Your task to perform on an android device: open app "Google Sheets" Image 0: 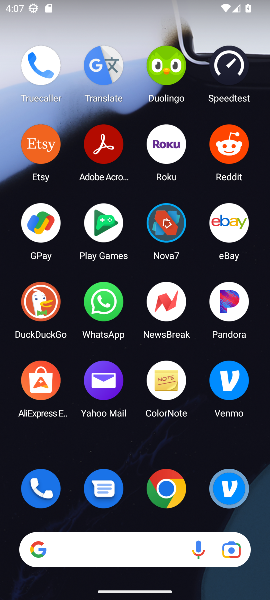
Step 0: drag from (141, 444) to (155, 8)
Your task to perform on an android device: open app "Google Sheets" Image 1: 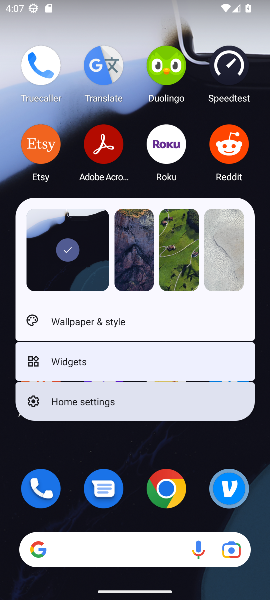
Step 1: click (134, 113)
Your task to perform on an android device: open app "Google Sheets" Image 2: 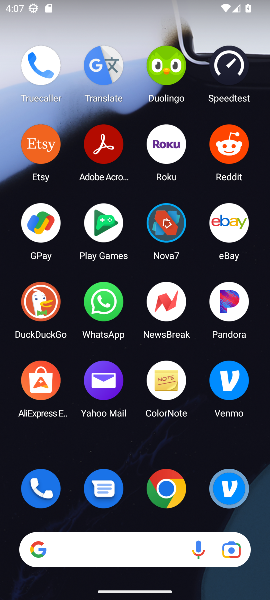
Step 2: drag from (130, 438) to (149, 103)
Your task to perform on an android device: open app "Google Sheets" Image 3: 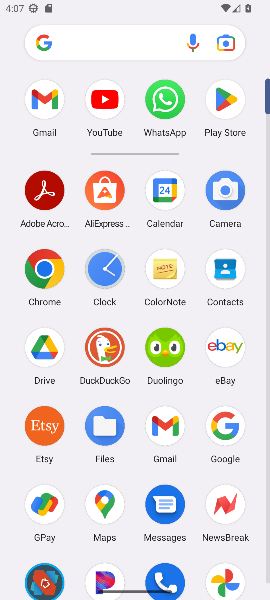
Step 3: drag from (139, 456) to (147, 184)
Your task to perform on an android device: open app "Google Sheets" Image 4: 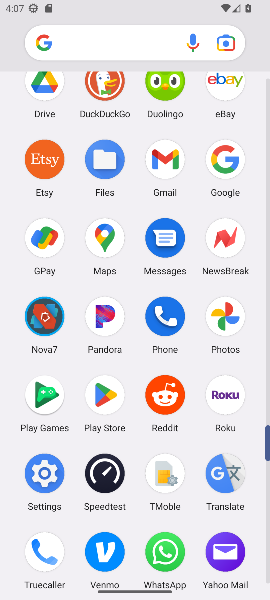
Step 4: click (110, 392)
Your task to perform on an android device: open app "Google Sheets" Image 5: 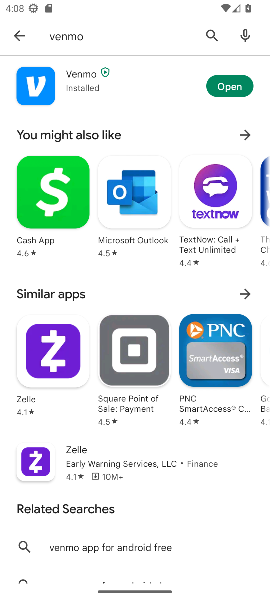
Step 5: click (213, 54)
Your task to perform on an android device: open app "Google Sheets" Image 6: 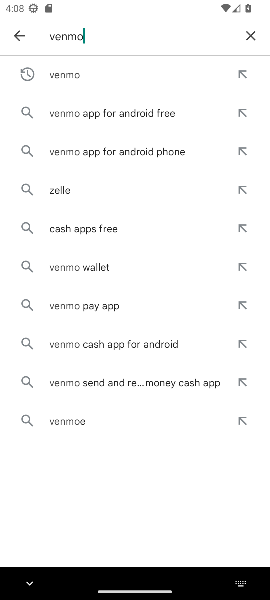
Step 6: click (248, 42)
Your task to perform on an android device: open app "Google Sheets" Image 7: 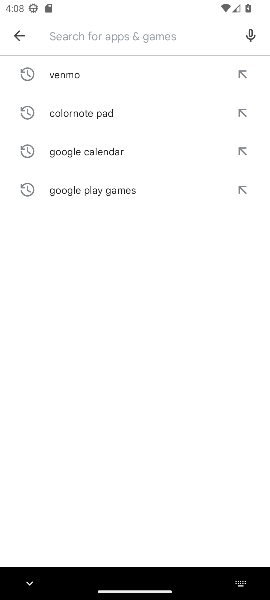
Step 7: type "google sheet"
Your task to perform on an android device: open app "Google Sheets" Image 8: 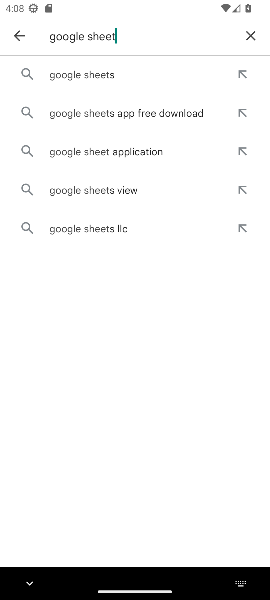
Step 8: click (109, 74)
Your task to perform on an android device: open app "Google Sheets" Image 9: 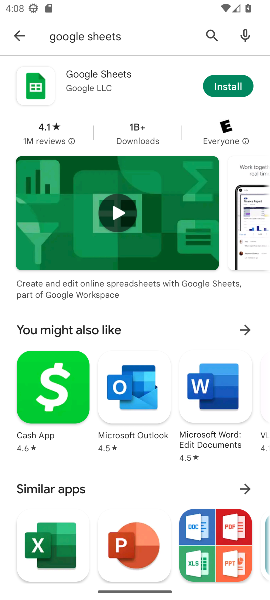
Step 9: click (211, 80)
Your task to perform on an android device: open app "Google Sheets" Image 10: 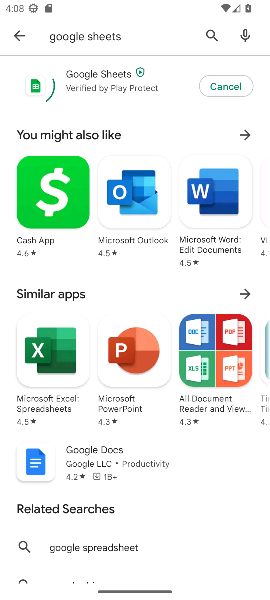
Step 10: task complete